Your task to perform on an android device: Show me popular videos on Youtube Image 0: 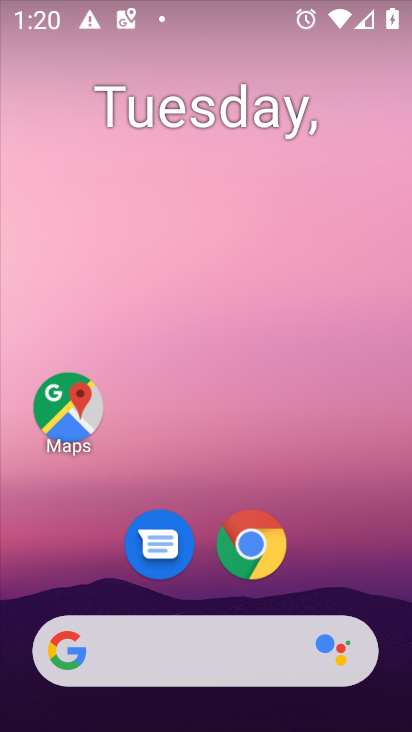
Step 0: drag from (376, 466) to (397, 109)
Your task to perform on an android device: Show me popular videos on Youtube Image 1: 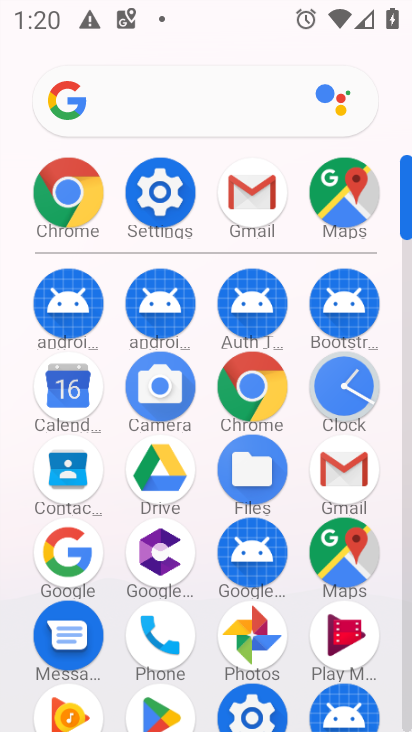
Step 1: drag from (306, 619) to (313, 227)
Your task to perform on an android device: Show me popular videos on Youtube Image 2: 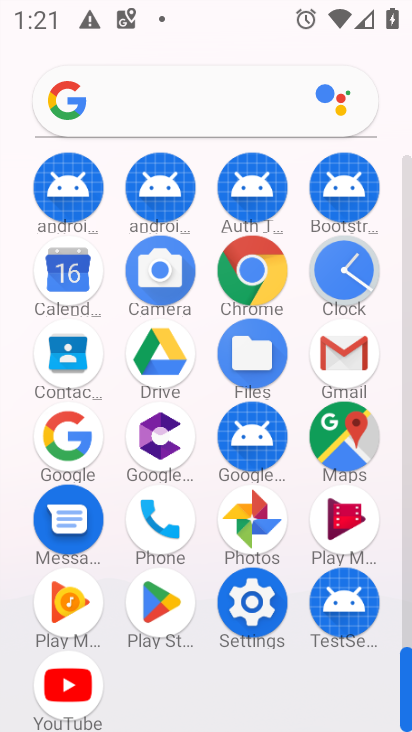
Step 2: click (61, 678)
Your task to perform on an android device: Show me popular videos on Youtube Image 3: 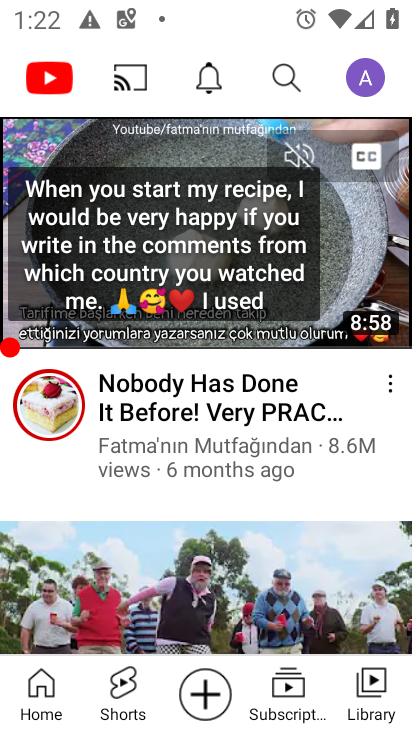
Step 3: drag from (181, 480) to (179, 617)
Your task to perform on an android device: Show me popular videos on Youtube Image 4: 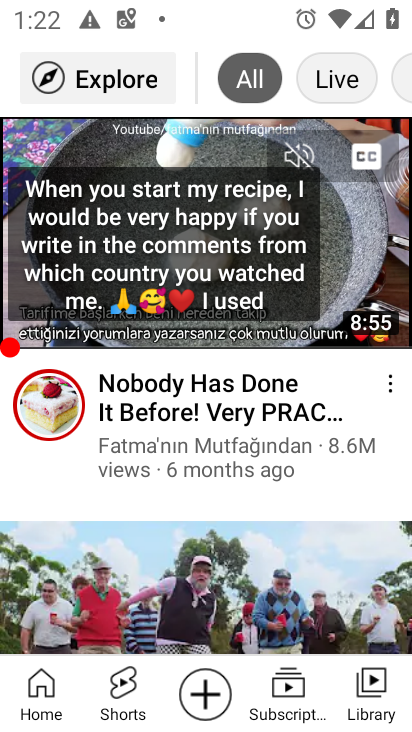
Step 4: click (88, 76)
Your task to perform on an android device: Show me popular videos on Youtube Image 5: 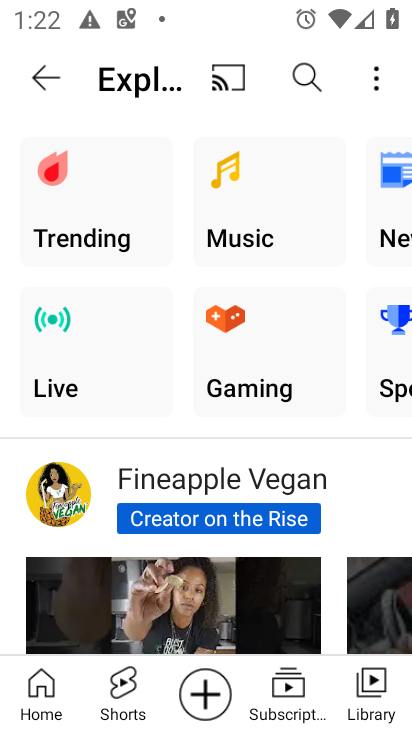
Step 5: task complete